Your task to perform on an android device: turn off wifi Image 0: 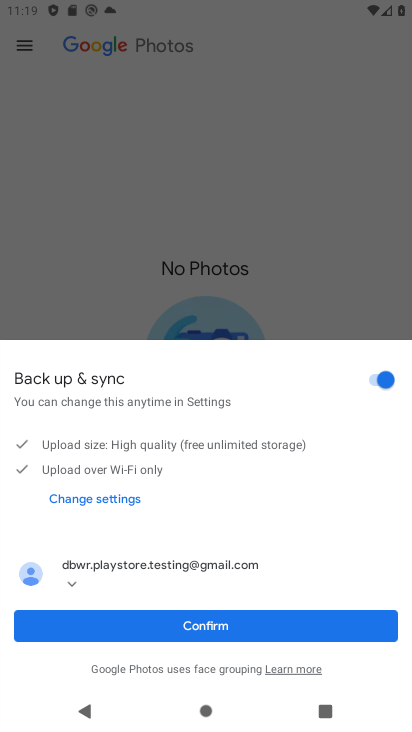
Step 0: press home button
Your task to perform on an android device: turn off wifi Image 1: 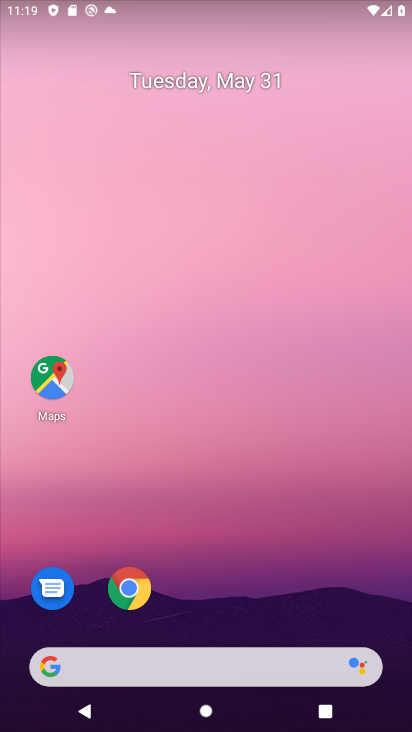
Step 1: drag from (284, 305) to (298, 256)
Your task to perform on an android device: turn off wifi Image 2: 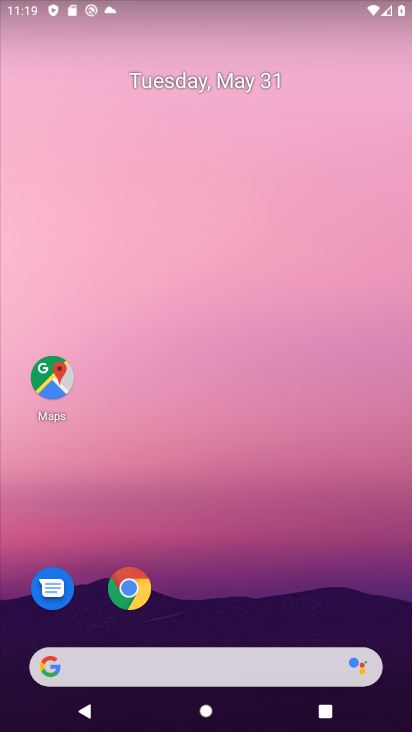
Step 2: drag from (236, 518) to (298, 204)
Your task to perform on an android device: turn off wifi Image 3: 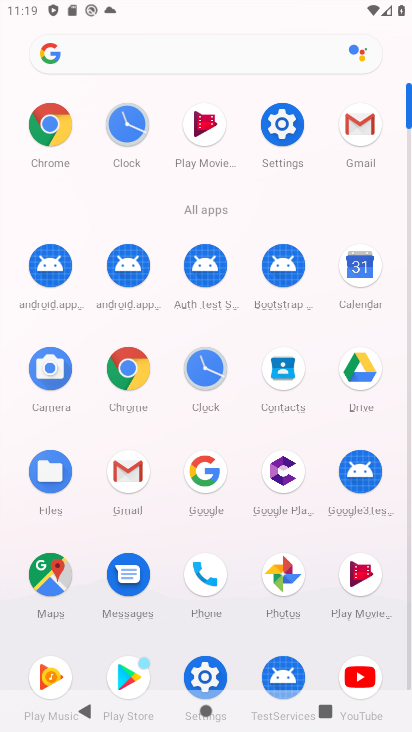
Step 3: click (285, 117)
Your task to perform on an android device: turn off wifi Image 4: 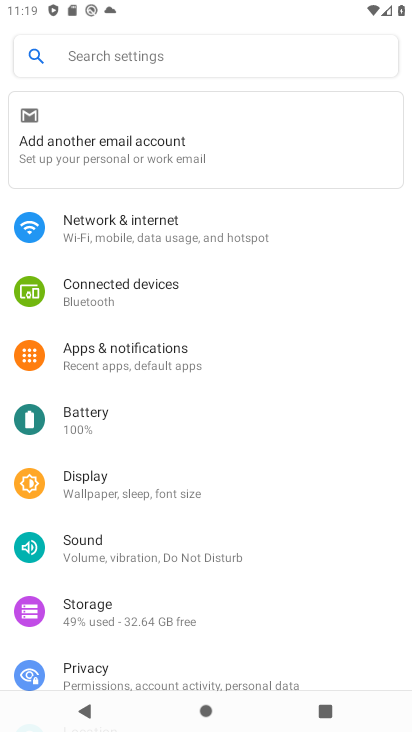
Step 4: click (117, 222)
Your task to perform on an android device: turn off wifi Image 5: 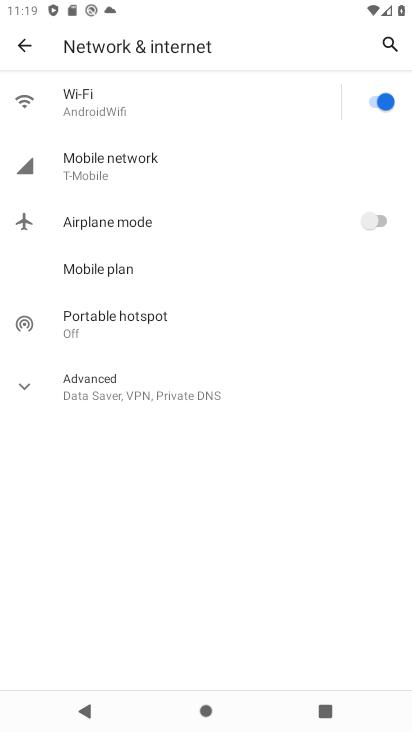
Step 5: click (110, 106)
Your task to perform on an android device: turn off wifi Image 6: 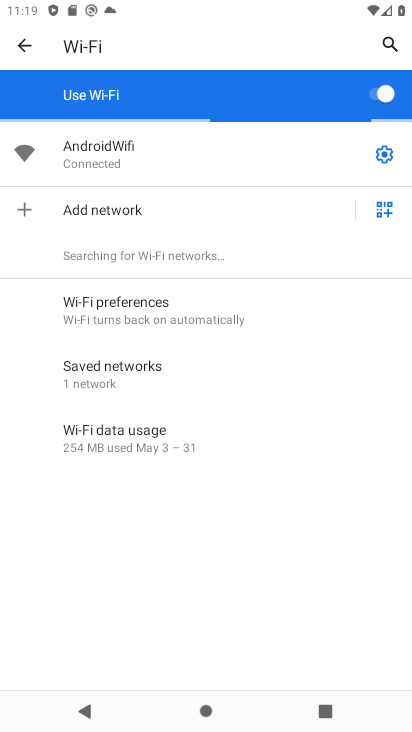
Step 6: task complete